Your task to perform on an android device: Turn off the flashlight Image 0: 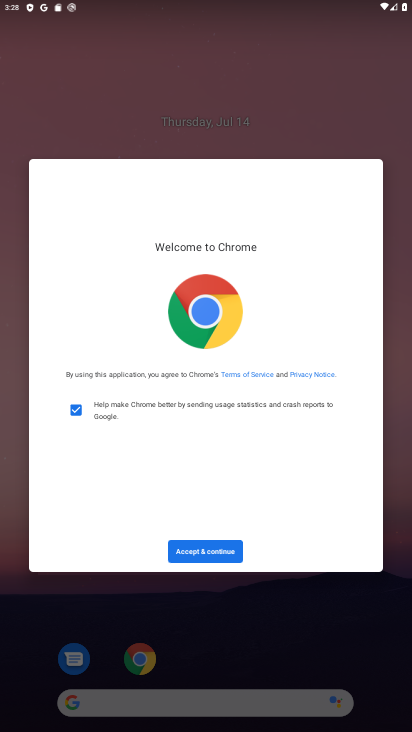
Step 0: press home button
Your task to perform on an android device: Turn off the flashlight Image 1: 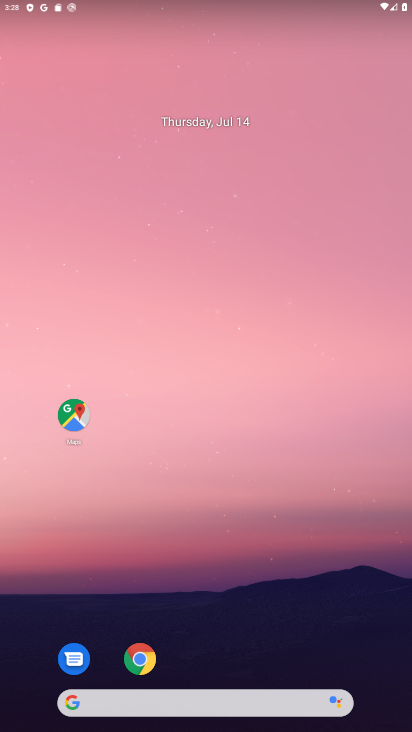
Step 1: task complete